Your task to perform on an android device: Go to display settings Image 0: 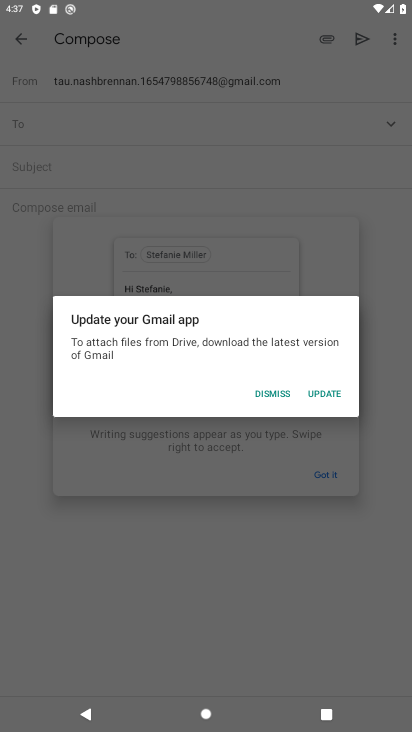
Step 0: drag from (111, 6) to (164, 642)
Your task to perform on an android device: Go to display settings Image 1: 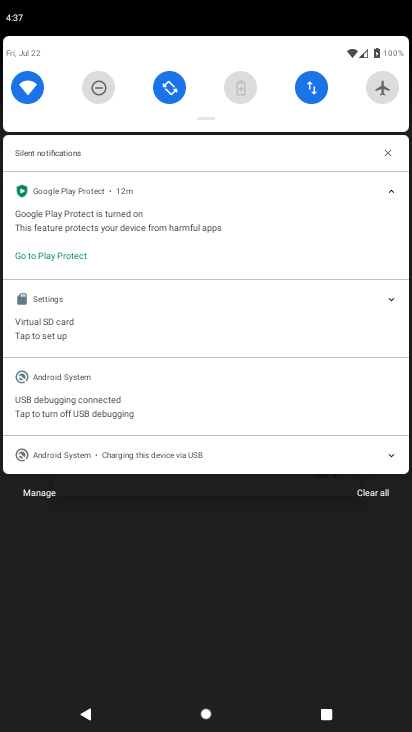
Step 1: drag from (189, 51) to (239, 466)
Your task to perform on an android device: Go to display settings Image 2: 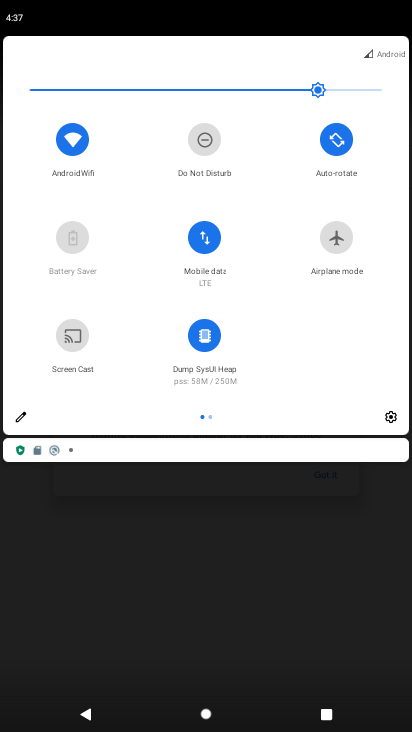
Step 2: click (389, 428)
Your task to perform on an android device: Go to display settings Image 3: 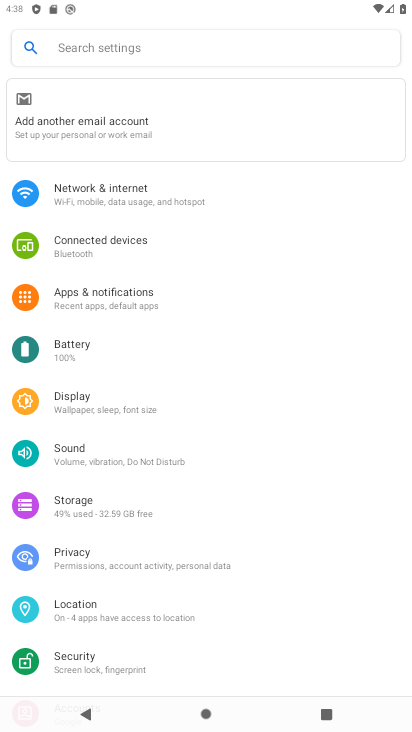
Step 3: click (158, 403)
Your task to perform on an android device: Go to display settings Image 4: 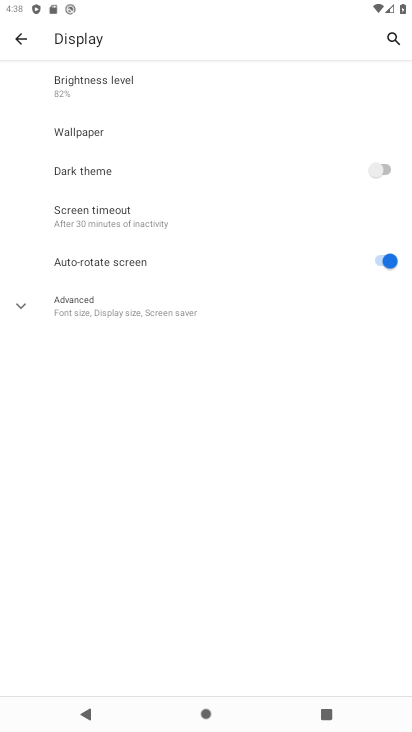
Step 4: task complete